Your task to perform on an android device: Find coffee shops on Maps Image 0: 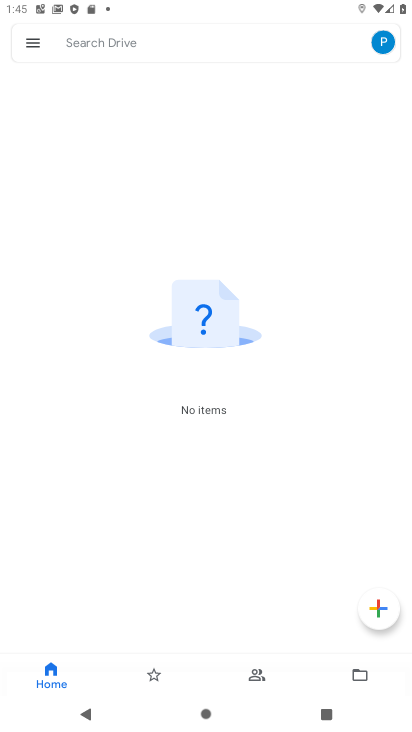
Step 0: press home button
Your task to perform on an android device: Find coffee shops on Maps Image 1: 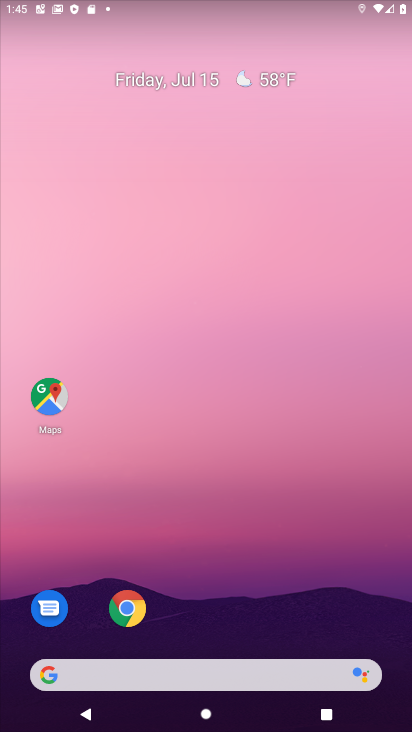
Step 1: drag from (276, 624) to (272, 127)
Your task to perform on an android device: Find coffee shops on Maps Image 2: 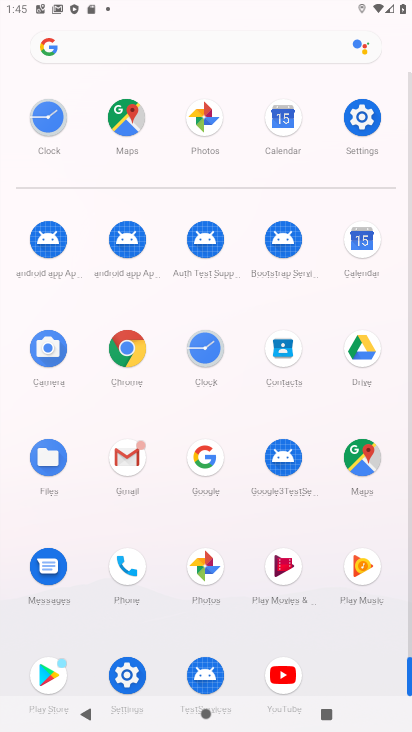
Step 2: click (368, 455)
Your task to perform on an android device: Find coffee shops on Maps Image 3: 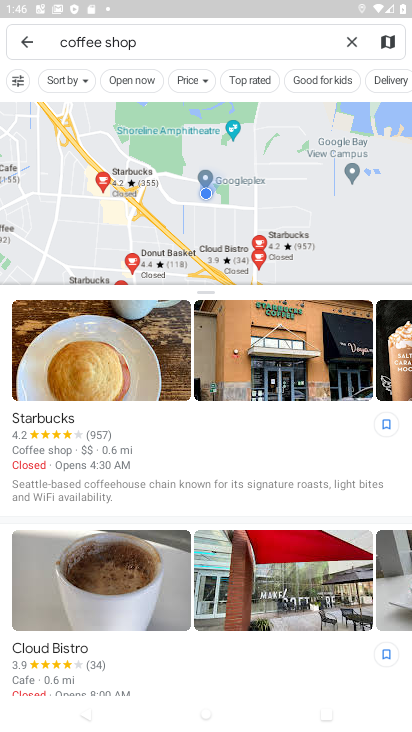
Step 3: task complete